Your task to perform on an android device: turn on the 24-hour format for clock Image 0: 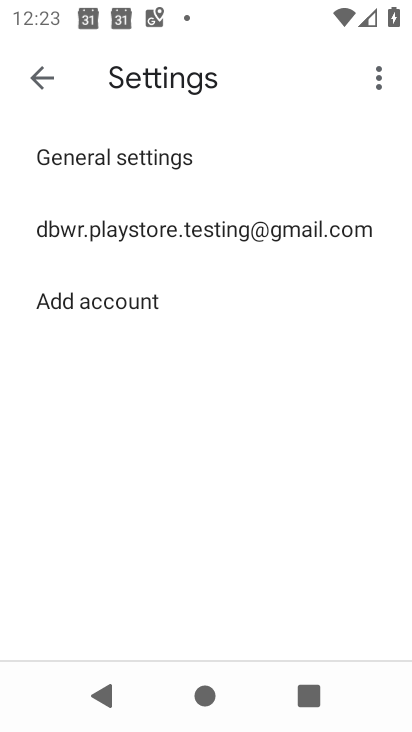
Step 0: press home button
Your task to perform on an android device: turn on the 24-hour format for clock Image 1: 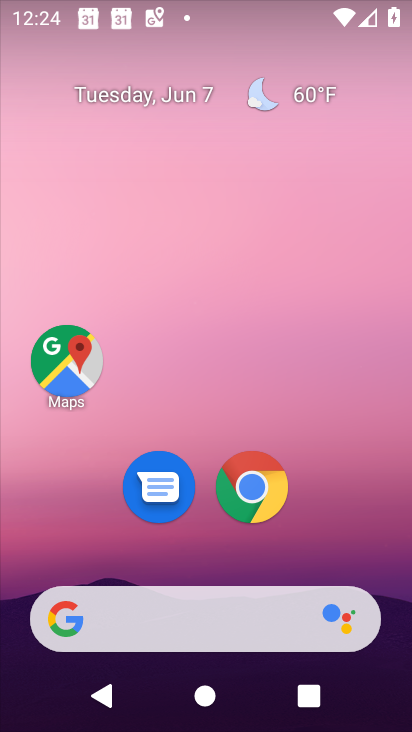
Step 1: drag from (369, 559) to (272, 106)
Your task to perform on an android device: turn on the 24-hour format for clock Image 2: 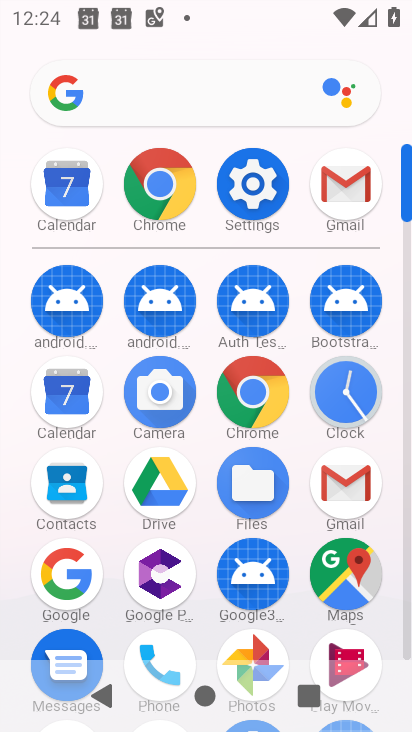
Step 2: click (354, 402)
Your task to perform on an android device: turn on the 24-hour format for clock Image 3: 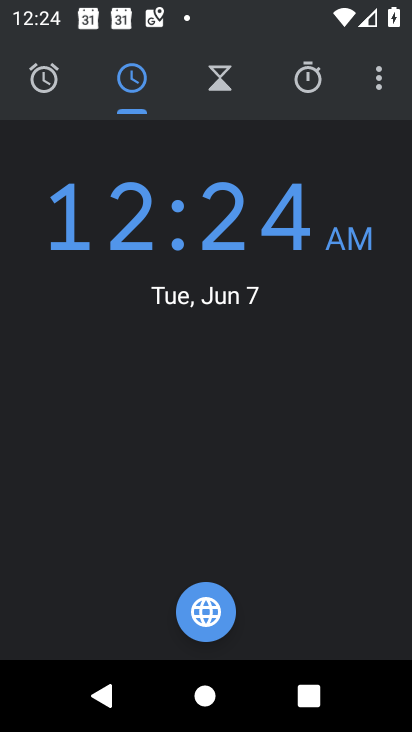
Step 3: click (378, 99)
Your task to perform on an android device: turn on the 24-hour format for clock Image 4: 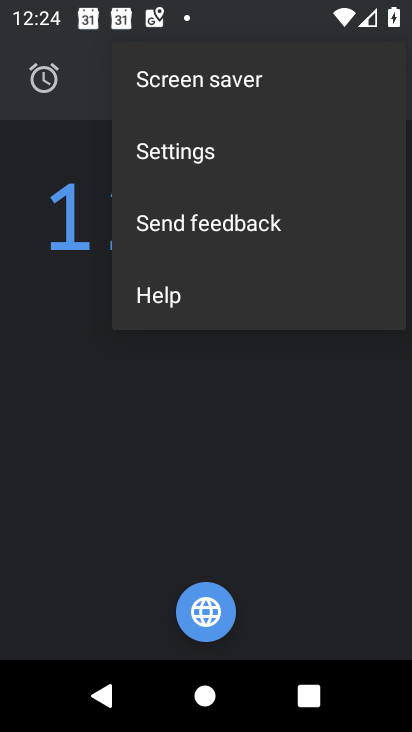
Step 4: click (195, 164)
Your task to perform on an android device: turn on the 24-hour format for clock Image 5: 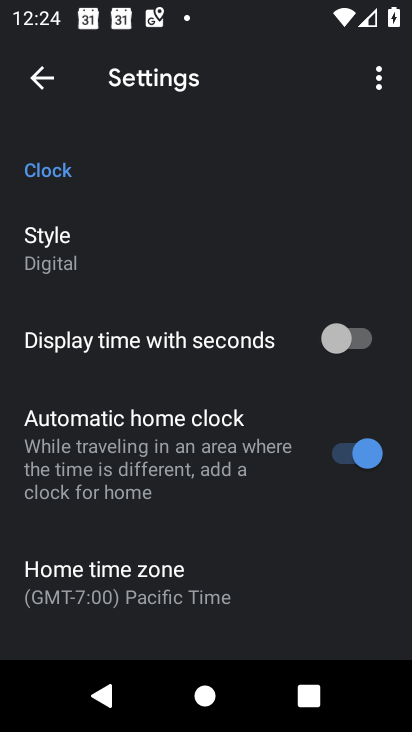
Step 5: drag from (235, 513) to (228, 6)
Your task to perform on an android device: turn on the 24-hour format for clock Image 6: 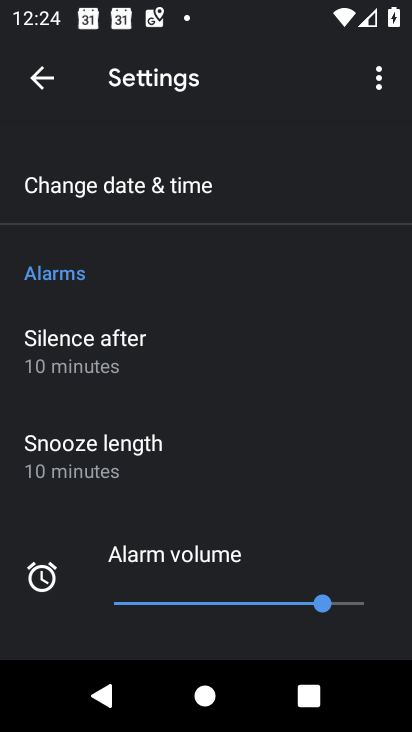
Step 6: click (218, 184)
Your task to perform on an android device: turn on the 24-hour format for clock Image 7: 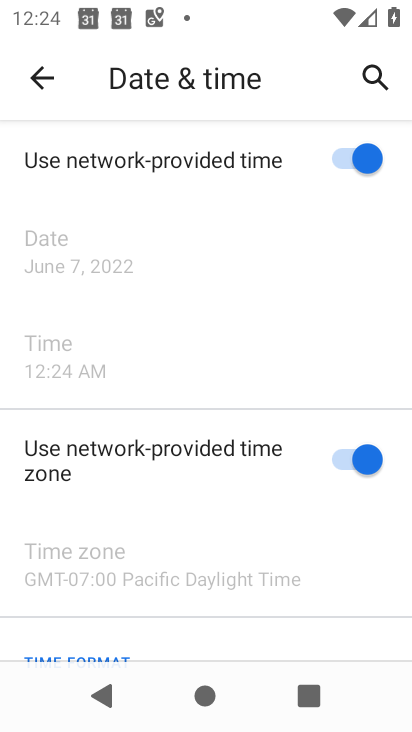
Step 7: drag from (248, 624) to (217, 294)
Your task to perform on an android device: turn on the 24-hour format for clock Image 8: 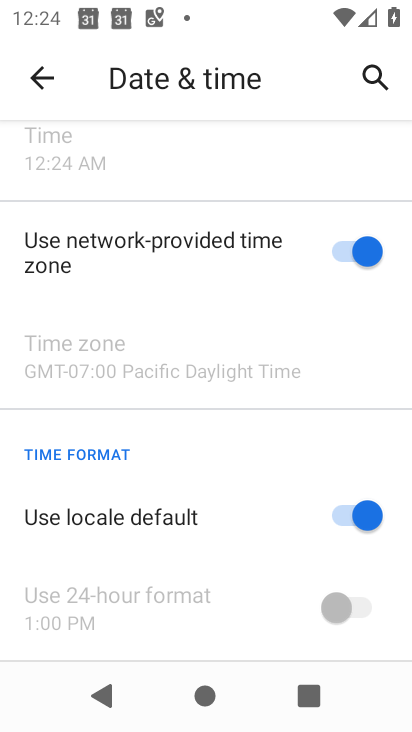
Step 8: click (344, 523)
Your task to perform on an android device: turn on the 24-hour format for clock Image 9: 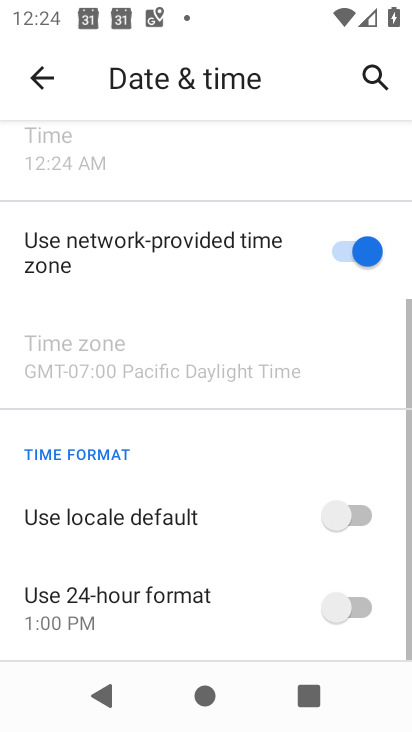
Step 9: click (353, 600)
Your task to perform on an android device: turn on the 24-hour format for clock Image 10: 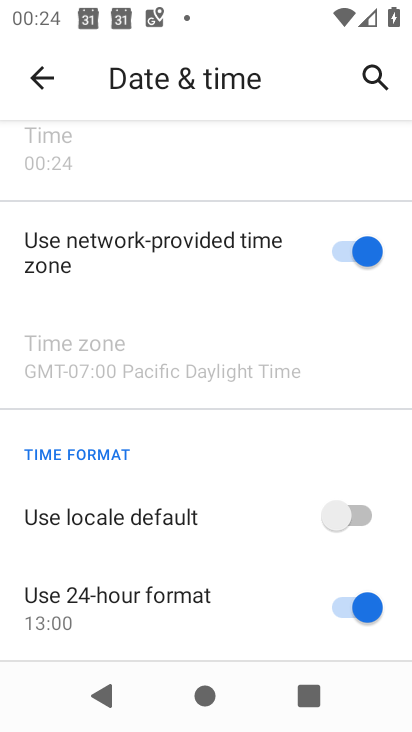
Step 10: task complete